Your task to perform on an android device: Go to settings Image 0: 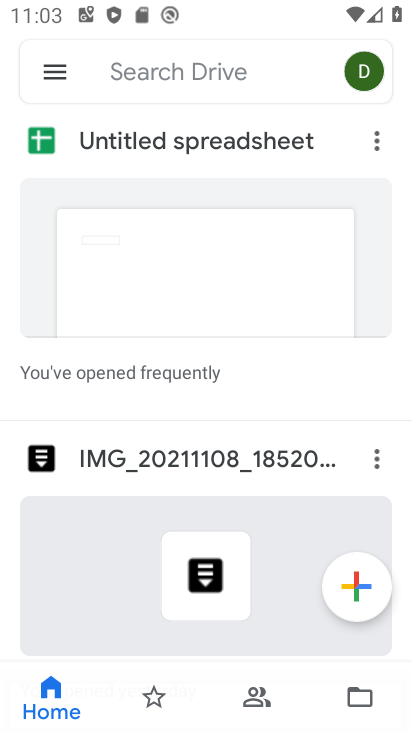
Step 0: press home button
Your task to perform on an android device: Go to settings Image 1: 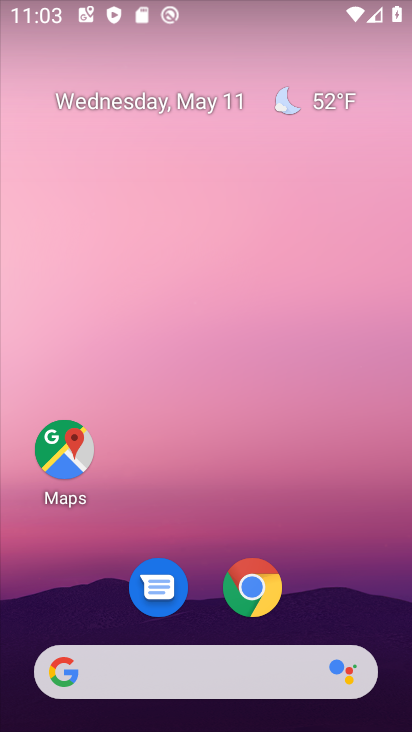
Step 1: drag from (225, 688) to (249, 215)
Your task to perform on an android device: Go to settings Image 2: 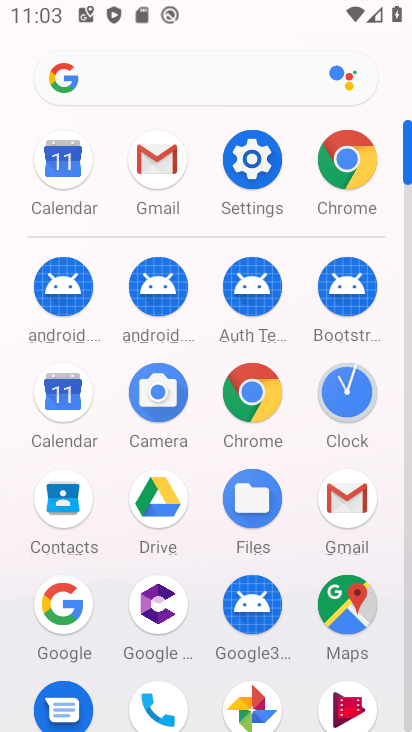
Step 2: click (268, 165)
Your task to perform on an android device: Go to settings Image 3: 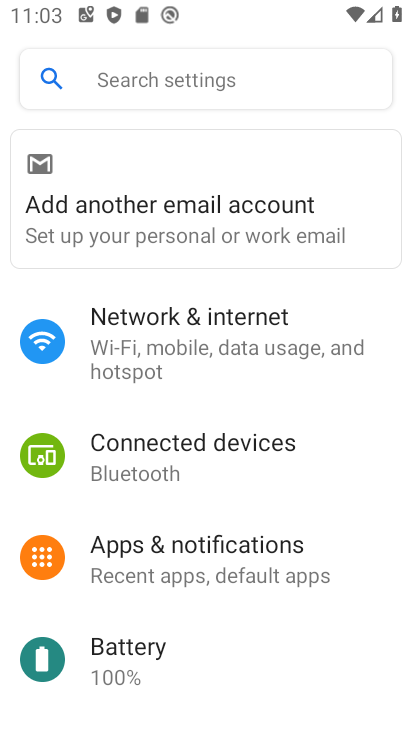
Step 3: task complete